Your task to perform on an android device: turn on the 12-hour format for clock Image 0: 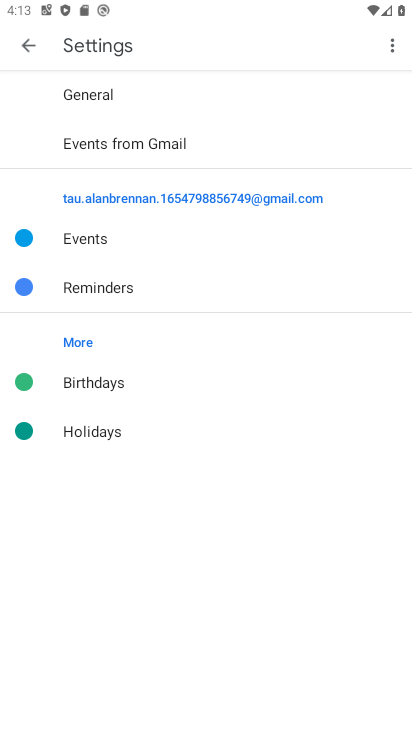
Step 0: press home button
Your task to perform on an android device: turn on the 12-hour format for clock Image 1: 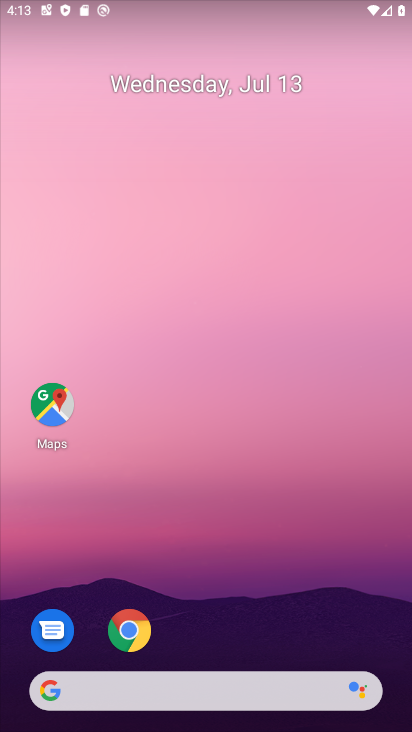
Step 1: drag from (209, 714) to (294, 40)
Your task to perform on an android device: turn on the 12-hour format for clock Image 2: 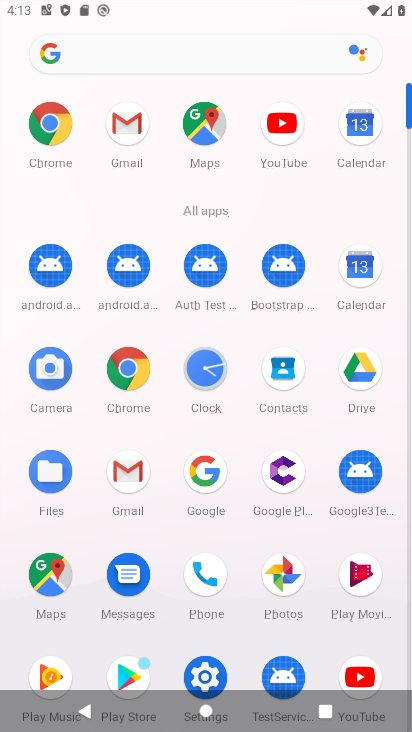
Step 2: click (197, 369)
Your task to perform on an android device: turn on the 12-hour format for clock Image 3: 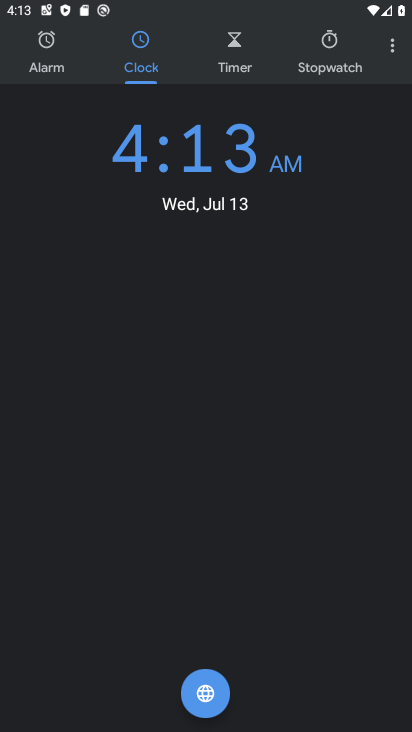
Step 3: click (398, 53)
Your task to perform on an android device: turn on the 12-hour format for clock Image 4: 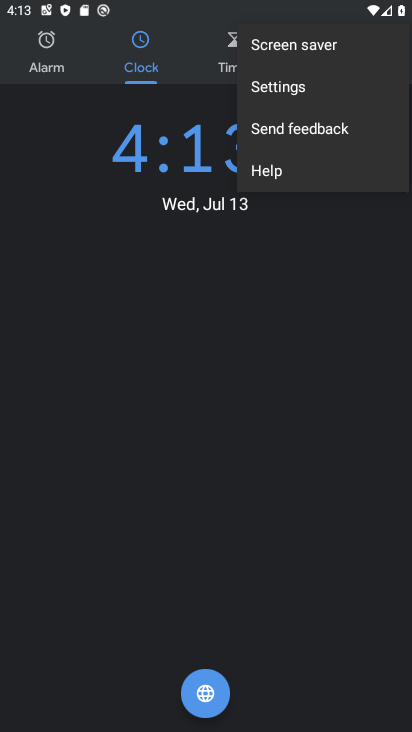
Step 4: click (280, 94)
Your task to perform on an android device: turn on the 12-hour format for clock Image 5: 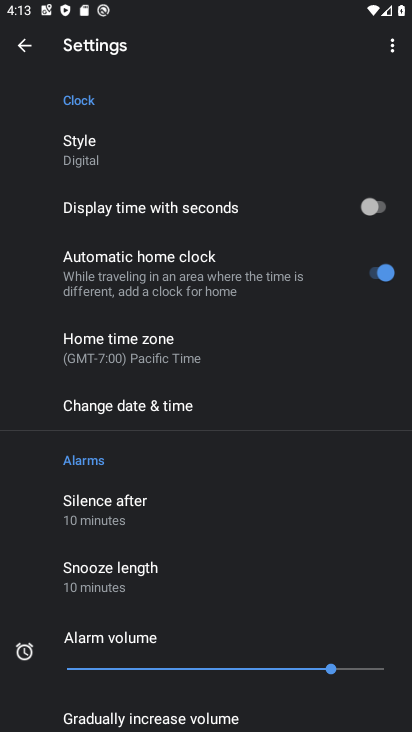
Step 5: click (144, 407)
Your task to perform on an android device: turn on the 12-hour format for clock Image 6: 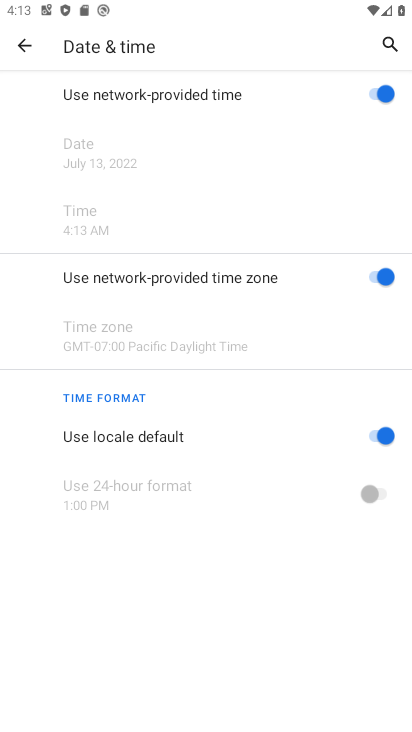
Step 6: click (372, 438)
Your task to perform on an android device: turn on the 12-hour format for clock Image 7: 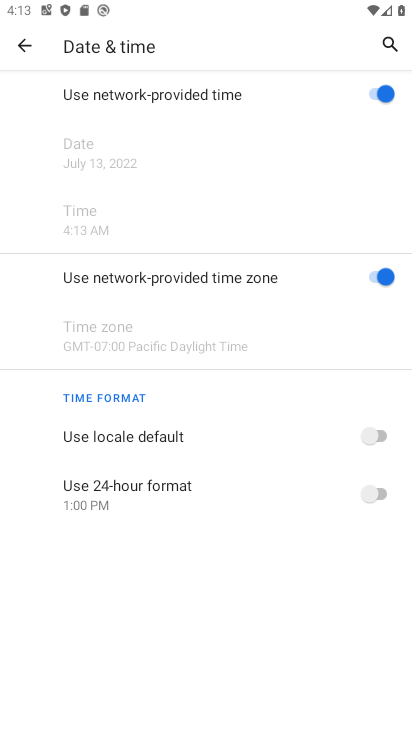
Step 7: task complete